Your task to perform on an android device: What is the news today? Image 0: 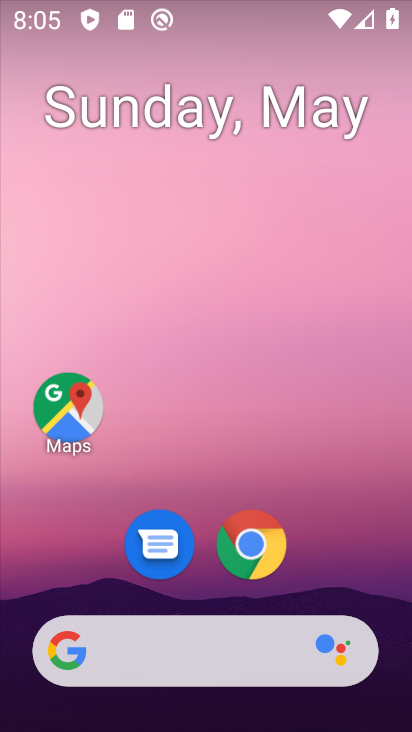
Step 0: drag from (328, 589) to (223, 18)
Your task to perform on an android device: What is the news today? Image 1: 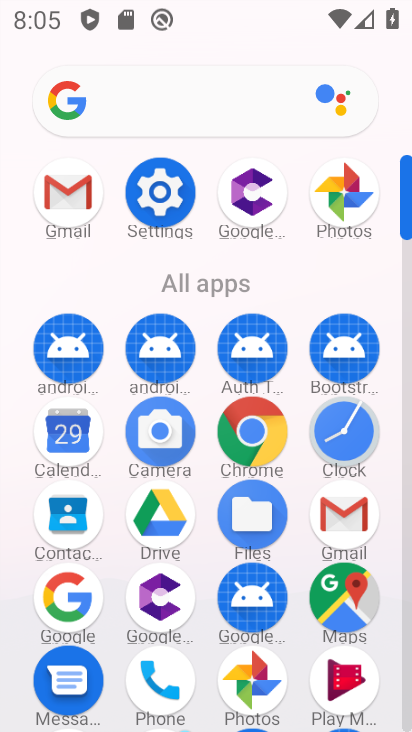
Step 1: click (244, 423)
Your task to perform on an android device: What is the news today? Image 2: 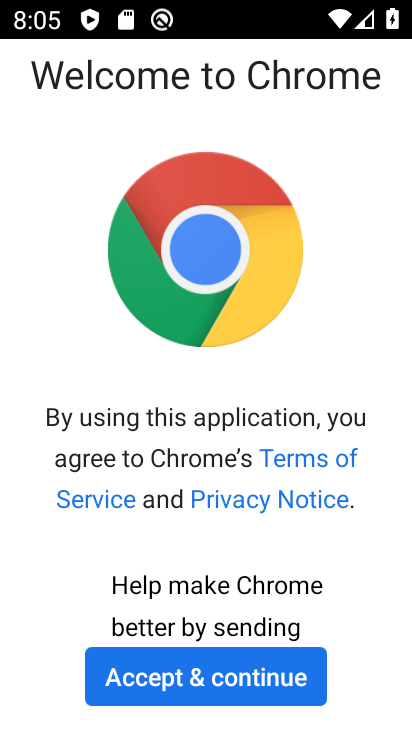
Step 2: click (246, 691)
Your task to perform on an android device: What is the news today? Image 3: 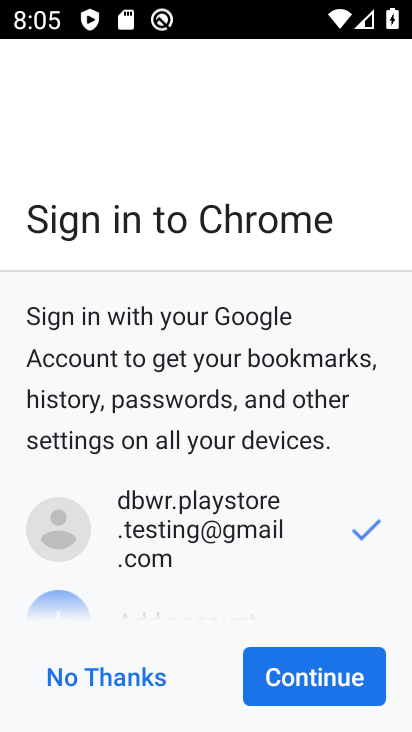
Step 3: click (120, 648)
Your task to perform on an android device: What is the news today? Image 4: 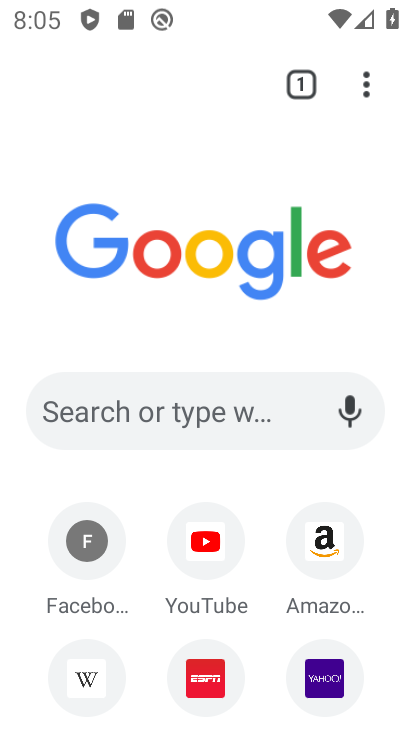
Step 4: drag from (391, 642) to (279, 127)
Your task to perform on an android device: What is the news today? Image 5: 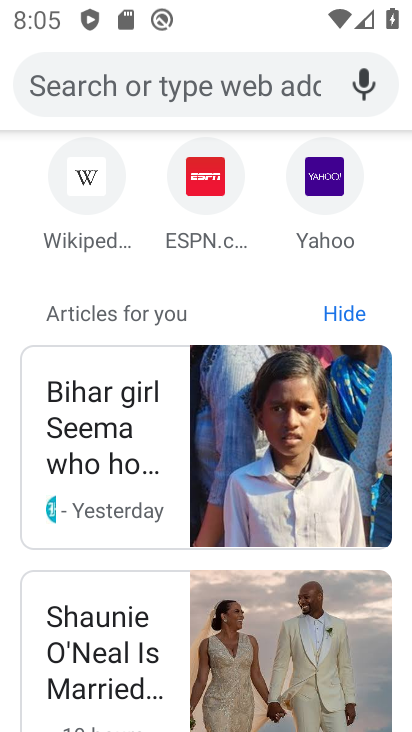
Step 5: drag from (403, 567) to (349, 256)
Your task to perform on an android device: What is the news today? Image 6: 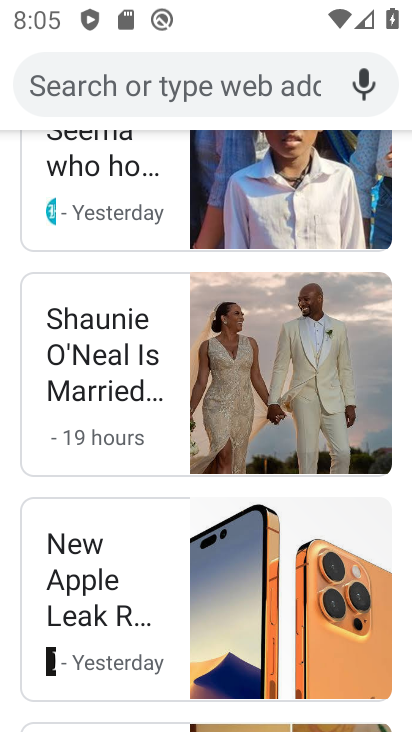
Step 6: drag from (183, 394) to (196, 572)
Your task to perform on an android device: What is the news today? Image 7: 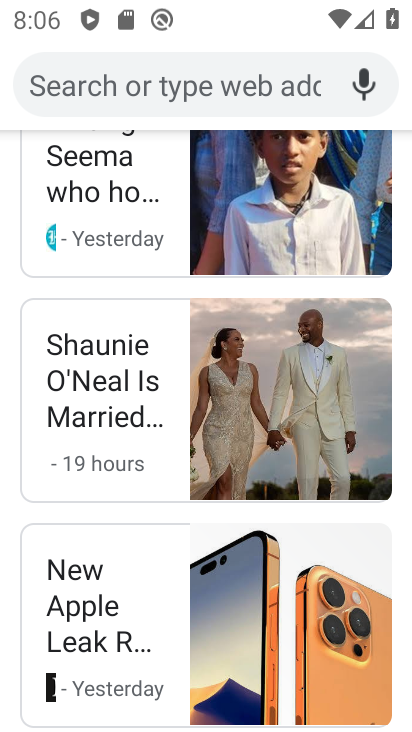
Step 7: drag from (405, 248) to (396, 450)
Your task to perform on an android device: What is the news today? Image 8: 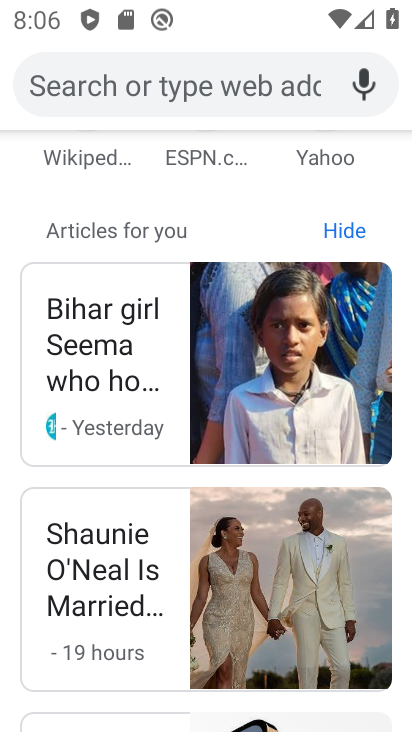
Step 8: click (71, 343)
Your task to perform on an android device: What is the news today? Image 9: 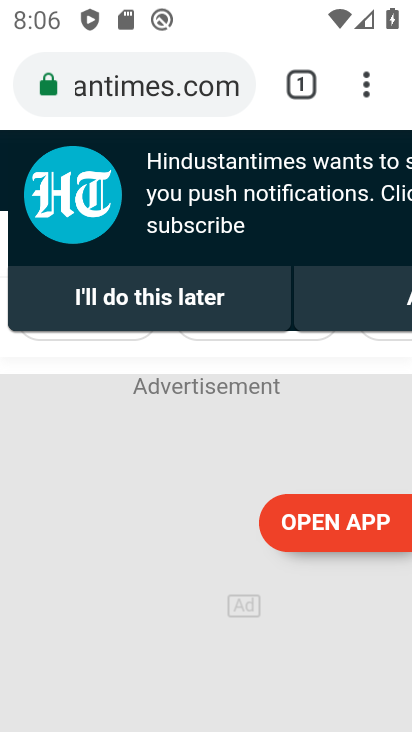
Step 9: task complete